Your task to perform on an android device: allow notifications from all sites in the chrome app Image 0: 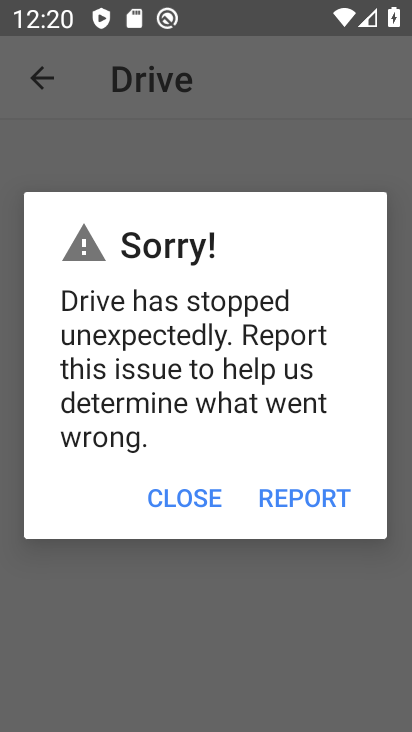
Step 0: press home button
Your task to perform on an android device: allow notifications from all sites in the chrome app Image 1: 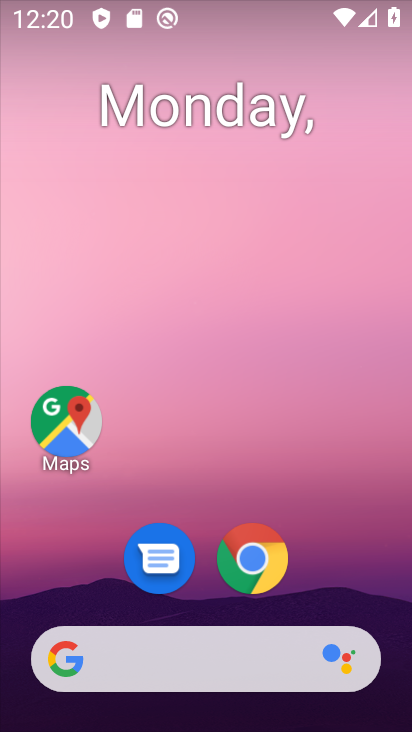
Step 1: drag from (337, 319) to (364, 47)
Your task to perform on an android device: allow notifications from all sites in the chrome app Image 2: 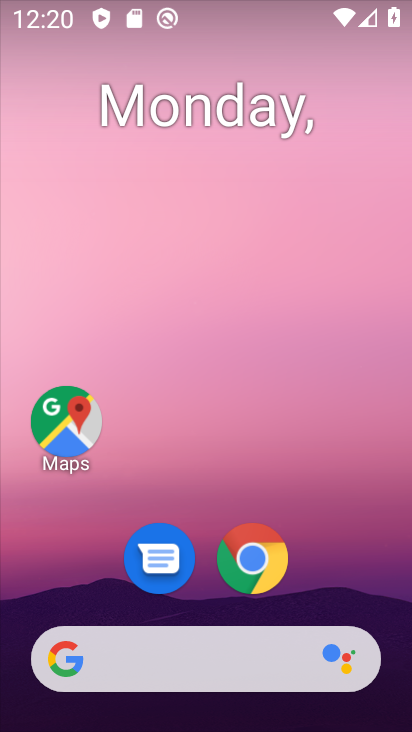
Step 2: drag from (374, 535) to (341, 3)
Your task to perform on an android device: allow notifications from all sites in the chrome app Image 3: 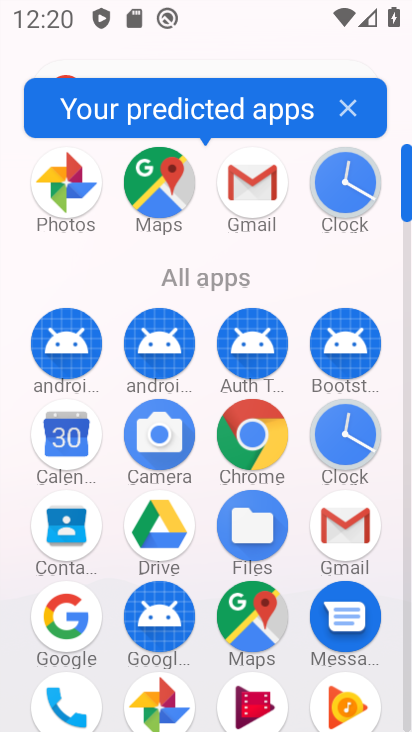
Step 3: click (246, 433)
Your task to perform on an android device: allow notifications from all sites in the chrome app Image 4: 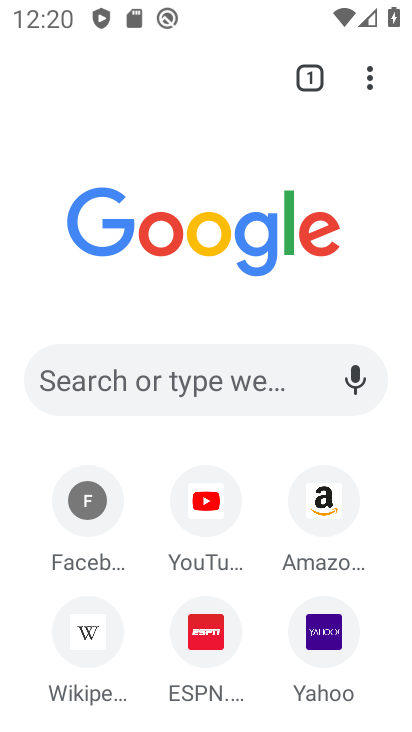
Step 4: drag from (349, 60) to (54, 618)
Your task to perform on an android device: allow notifications from all sites in the chrome app Image 5: 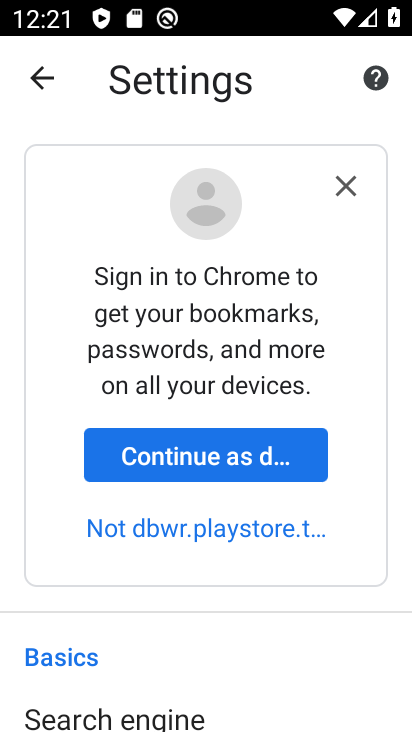
Step 5: drag from (106, 661) to (194, 161)
Your task to perform on an android device: allow notifications from all sites in the chrome app Image 6: 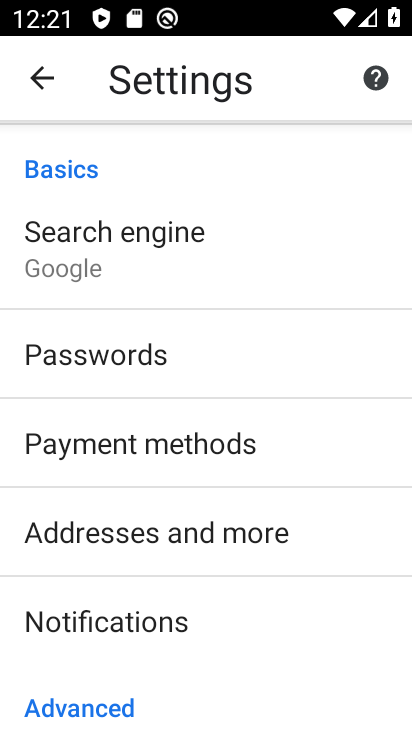
Step 6: drag from (167, 576) to (171, 142)
Your task to perform on an android device: allow notifications from all sites in the chrome app Image 7: 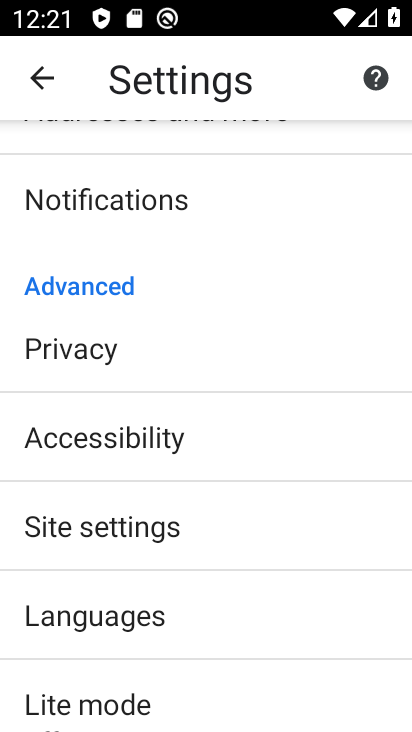
Step 7: click (158, 557)
Your task to perform on an android device: allow notifications from all sites in the chrome app Image 8: 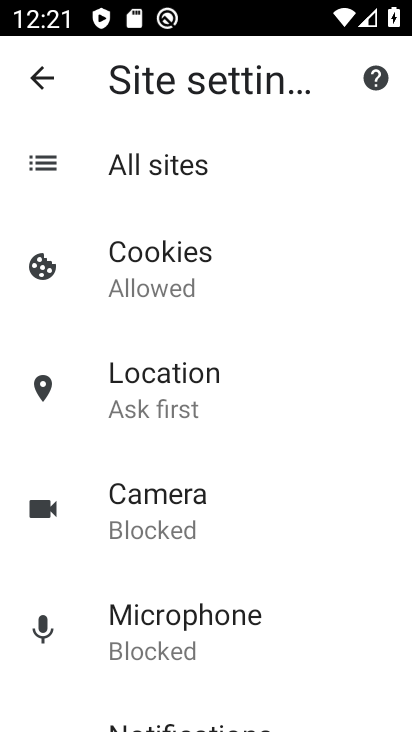
Step 8: drag from (215, 615) to (238, 153)
Your task to perform on an android device: allow notifications from all sites in the chrome app Image 9: 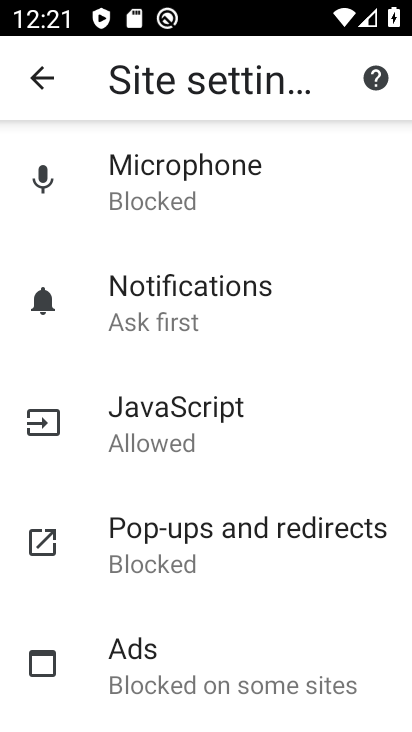
Step 9: drag from (201, 621) to (260, 210)
Your task to perform on an android device: allow notifications from all sites in the chrome app Image 10: 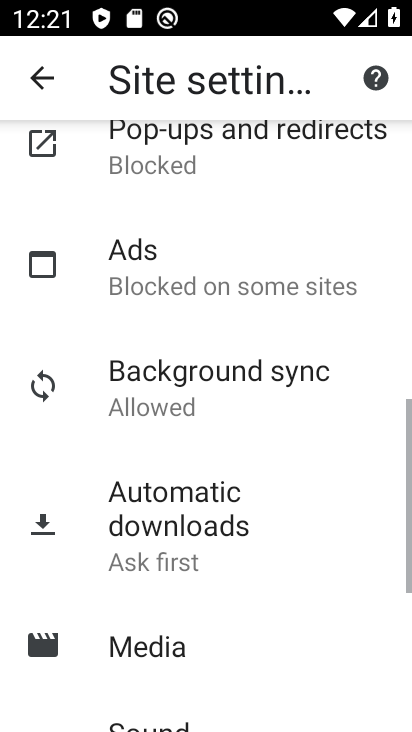
Step 10: drag from (262, 215) to (317, 607)
Your task to perform on an android device: allow notifications from all sites in the chrome app Image 11: 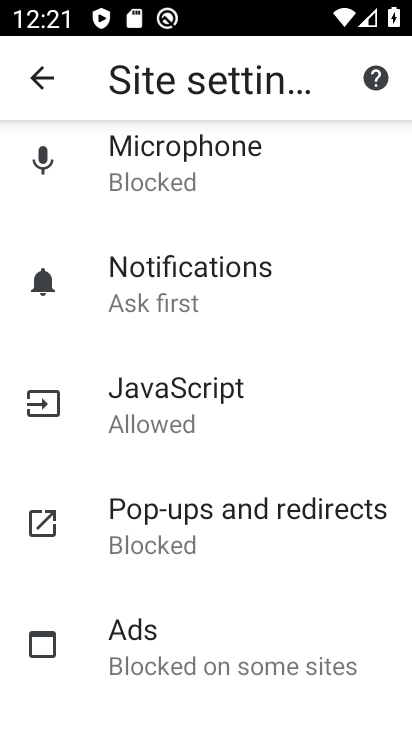
Step 11: click (168, 283)
Your task to perform on an android device: allow notifications from all sites in the chrome app Image 12: 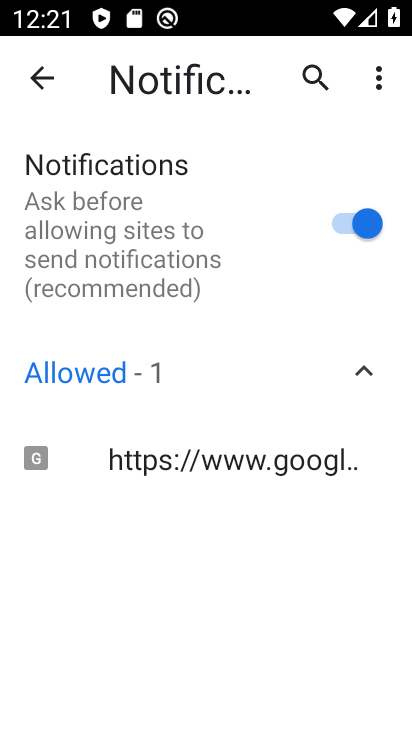
Step 12: task complete